Your task to perform on an android device: Open internet settings Image 0: 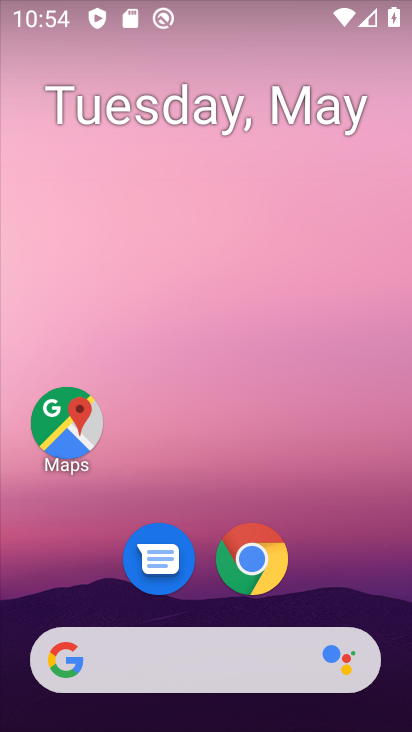
Step 0: drag from (354, 540) to (251, 163)
Your task to perform on an android device: Open internet settings Image 1: 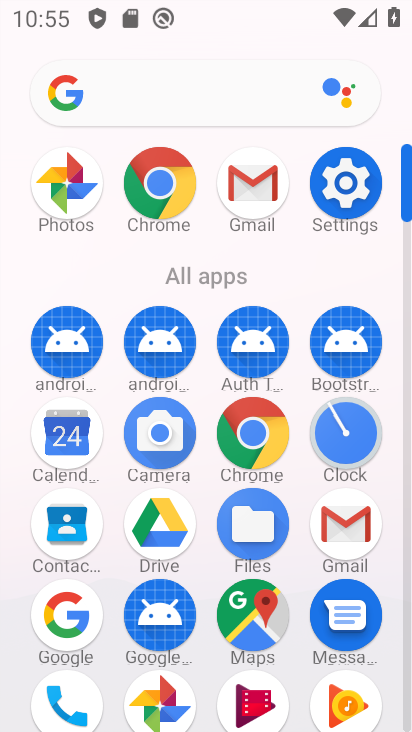
Step 1: click (343, 188)
Your task to perform on an android device: Open internet settings Image 2: 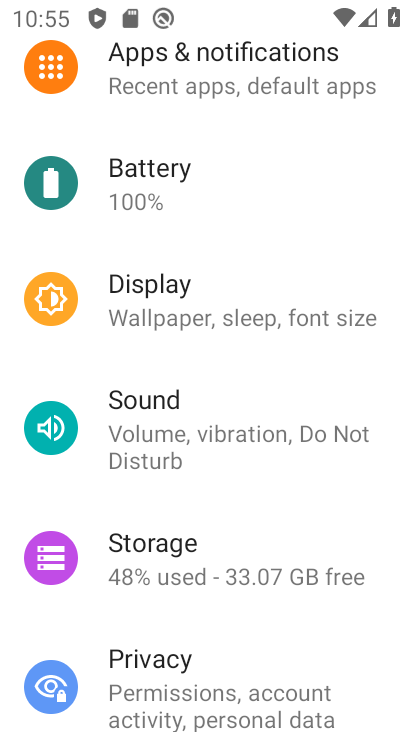
Step 2: drag from (265, 78) to (295, 565)
Your task to perform on an android device: Open internet settings Image 3: 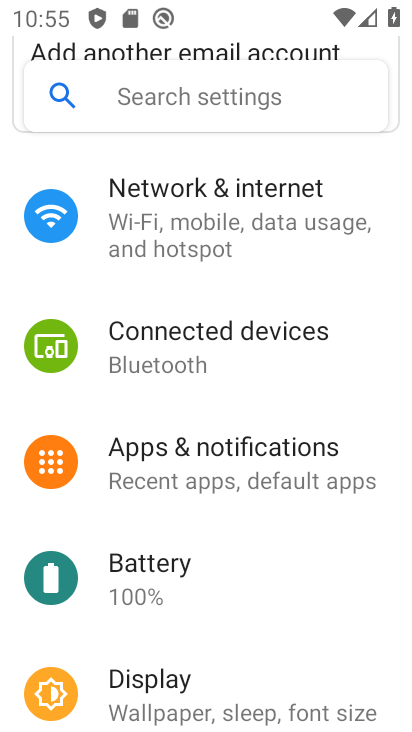
Step 3: click (234, 225)
Your task to perform on an android device: Open internet settings Image 4: 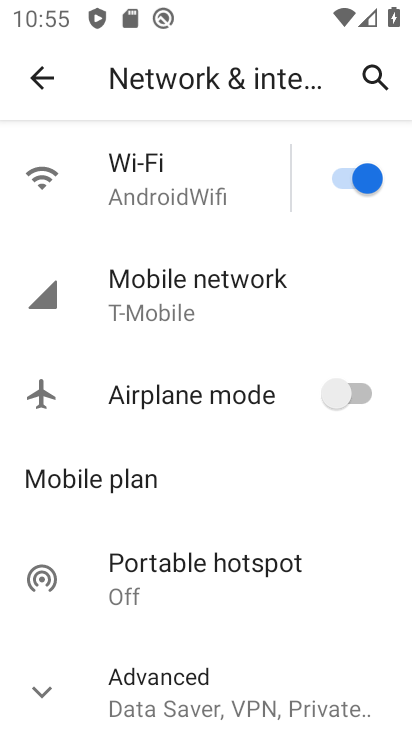
Step 4: task complete